Your task to perform on an android device: toggle location history Image 0: 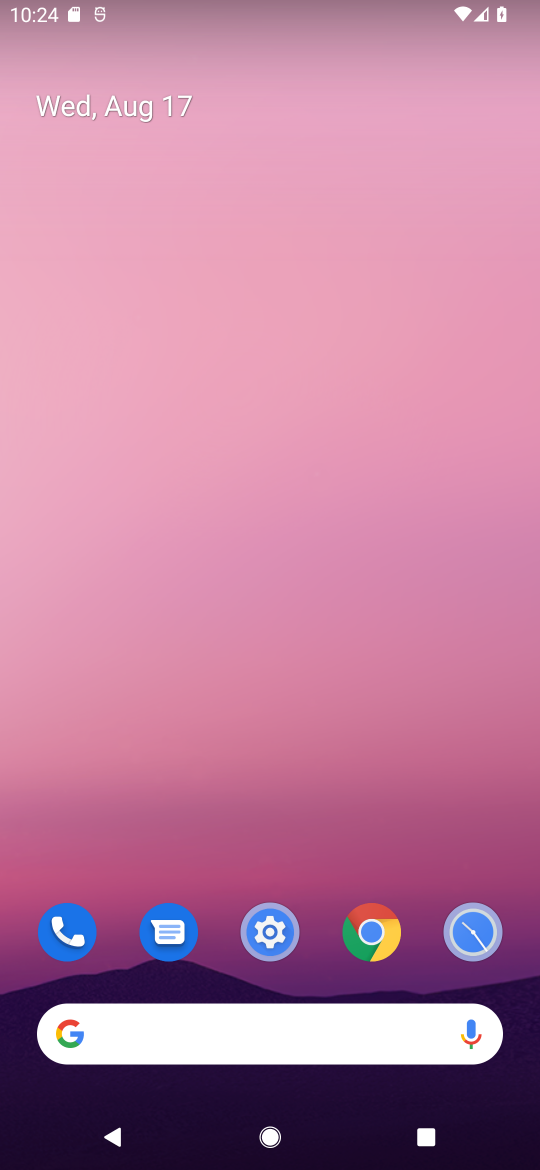
Step 0: drag from (307, 923) to (296, 92)
Your task to perform on an android device: toggle location history Image 1: 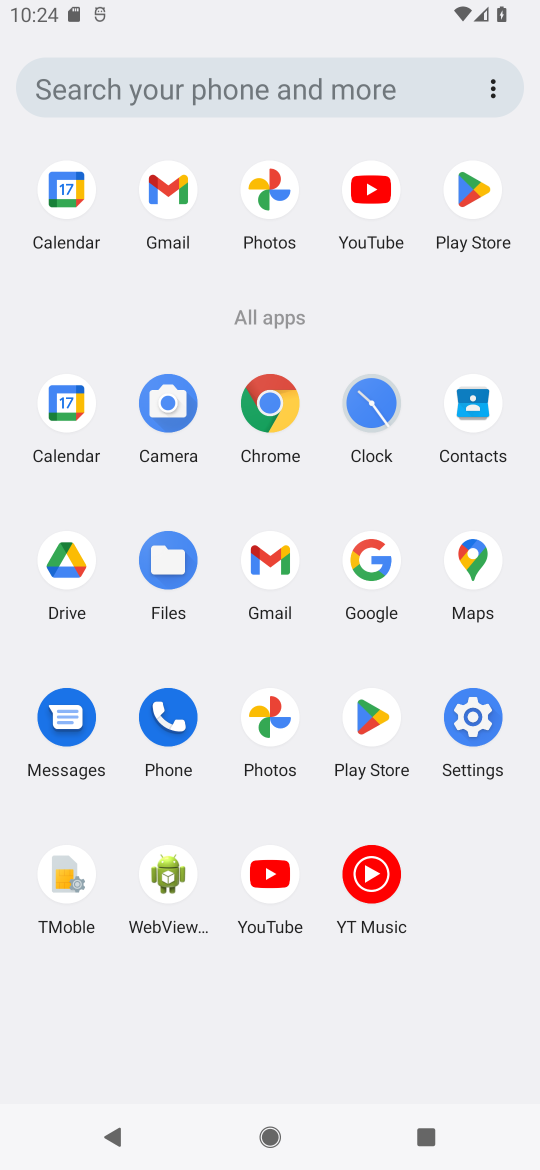
Step 1: click (471, 715)
Your task to perform on an android device: toggle location history Image 2: 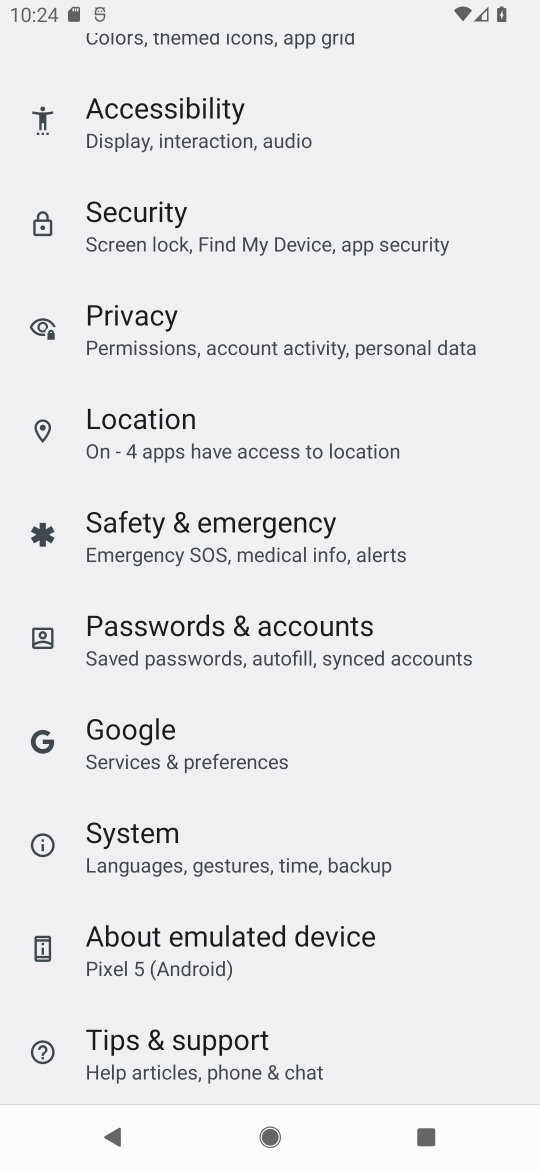
Step 2: click (131, 422)
Your task to perform on an android device: toggle location history Image 3: 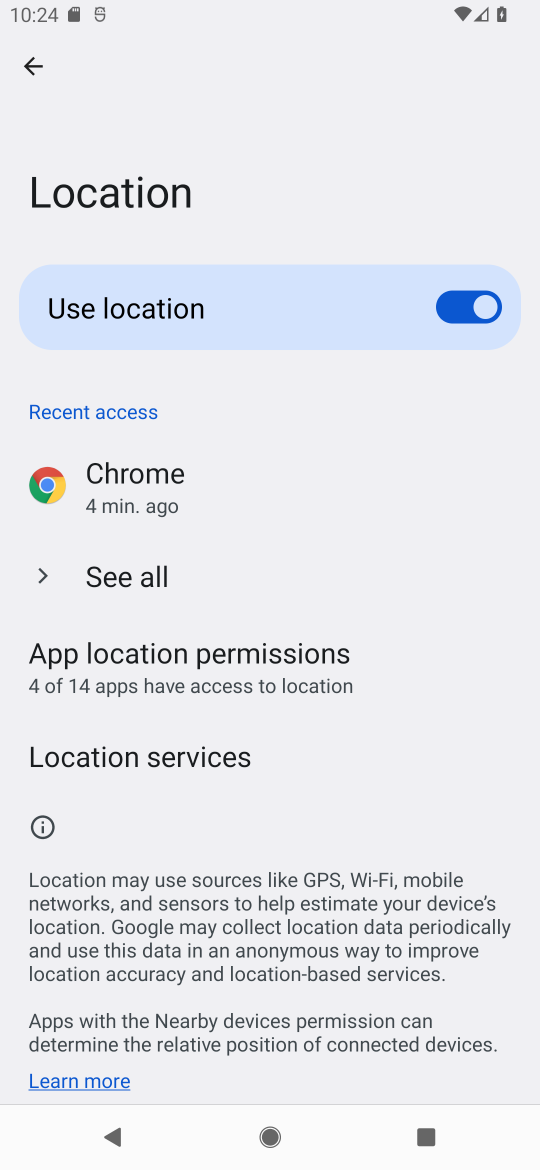
Step 3: click (142, 758)
Your task to perform on an android device: toggle location history Image 4: 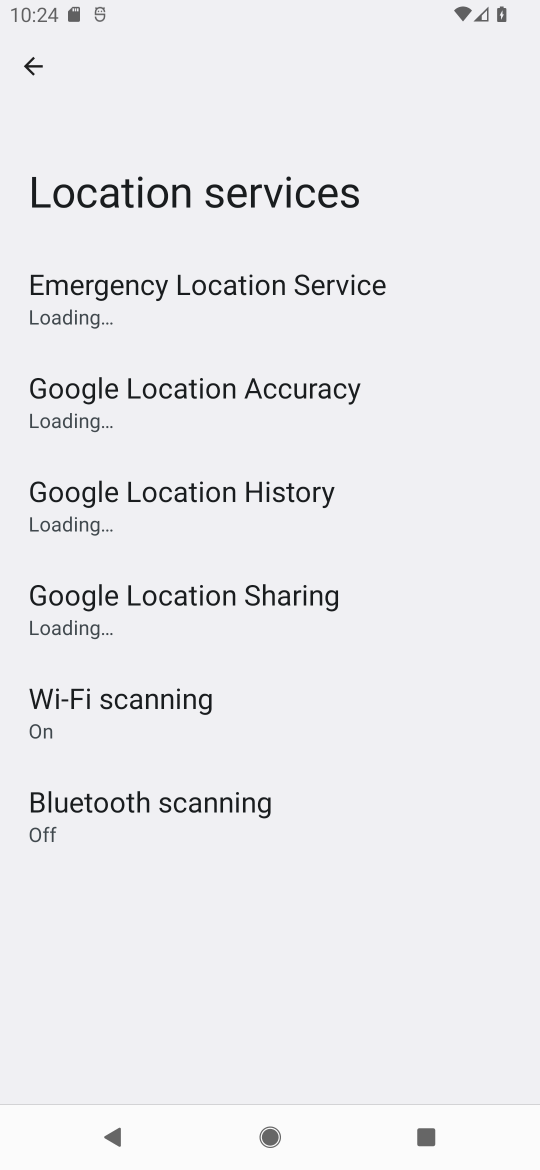
Step 4: click (228, 489)
Your task to perform on an android device: toggle location history Image 5: 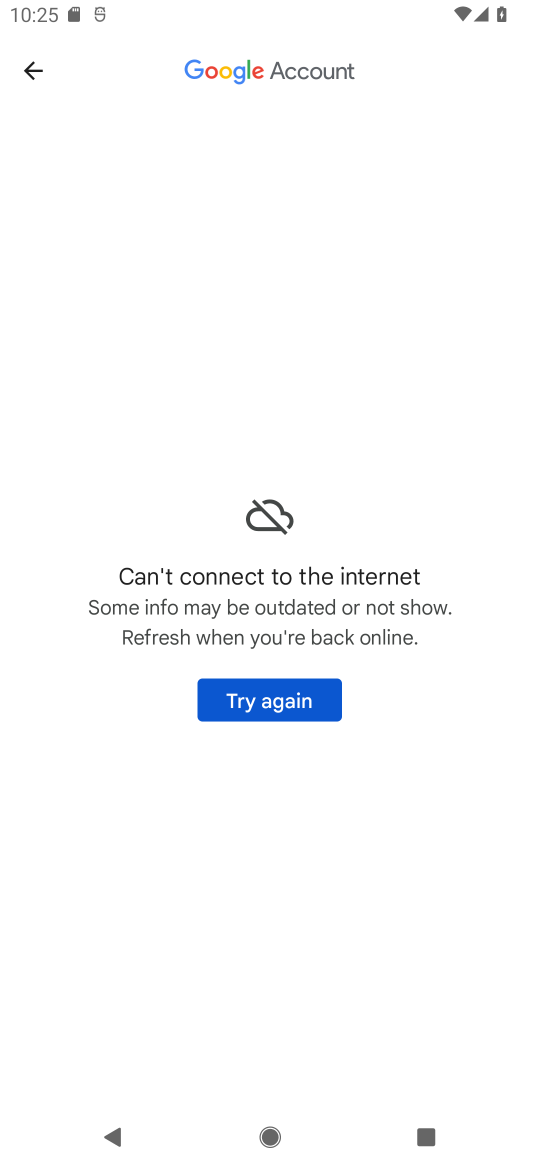
Step 5: task complete